Your task to perform on an android device: turn on javascript in the chrome app Image 0: 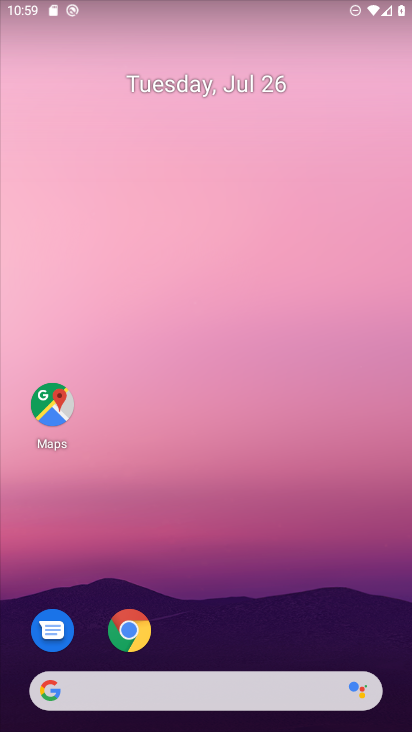
Step 0: click (130, 631)
Your task to perform on an android device: turn on javascript in the chrome app Image 1: 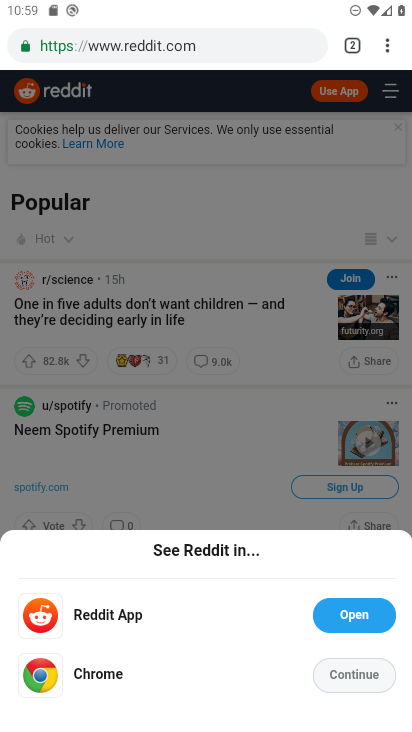
Step 1: click (387, 48)
Your task to perform on an android device: turn on javascript in the chrome app Image 2: 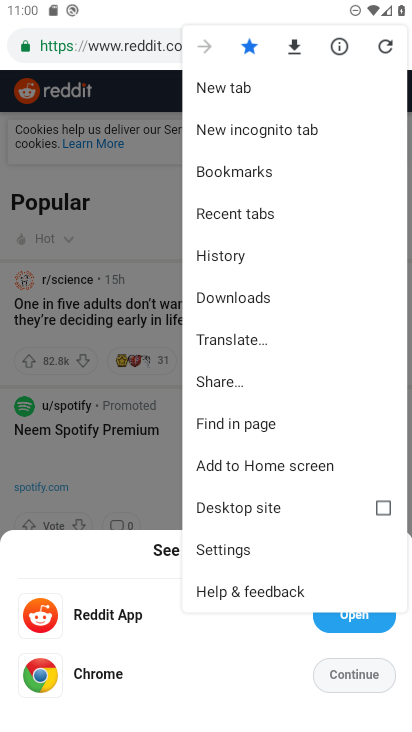
Step 2: click (224, 536)
Your task to perform on an android device: turn on javascript in the chrome app Image 3: 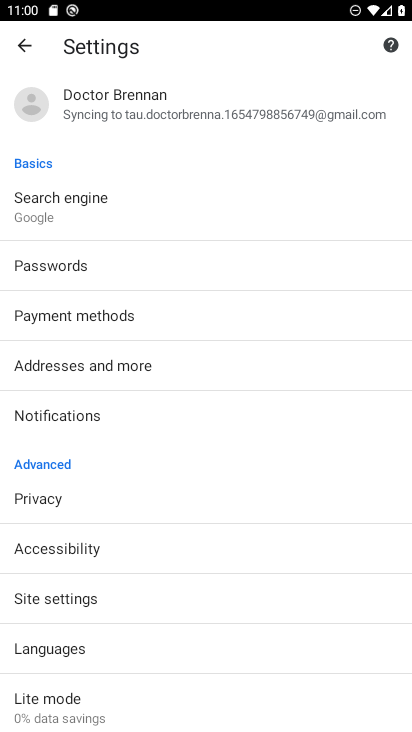
Step 3: click (68, 606)
Your task to perform on an android device: turn on javascript in the chrome app Image 4: 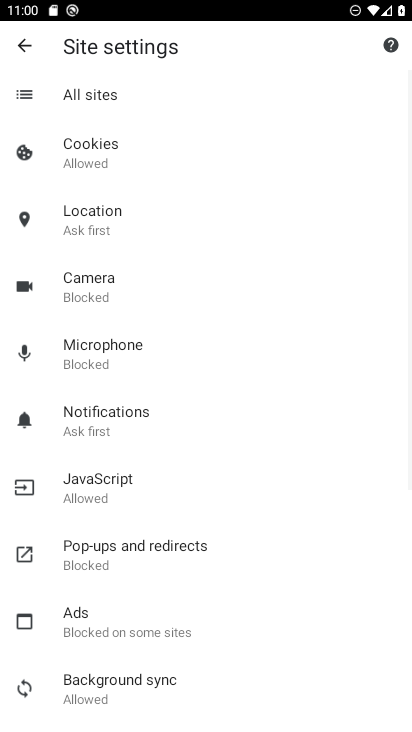
Step 4: click (98, 487)
Your task to perform on an android device: turn on javascript in the chrome app Image 5: 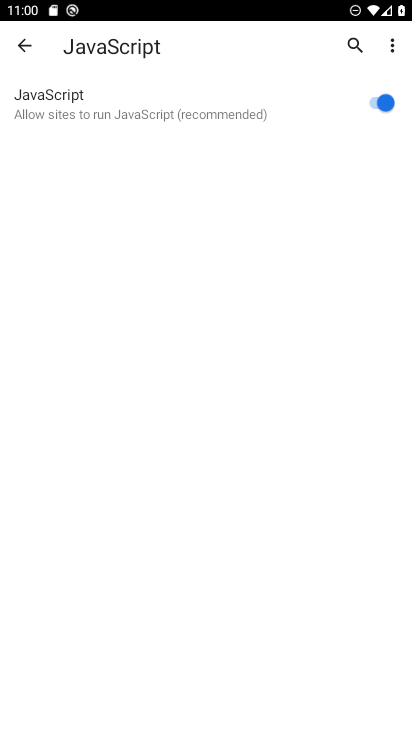
Step 5: task complete